Your task to perform on an android device: Go to calendar. Show me events next week Image 0: 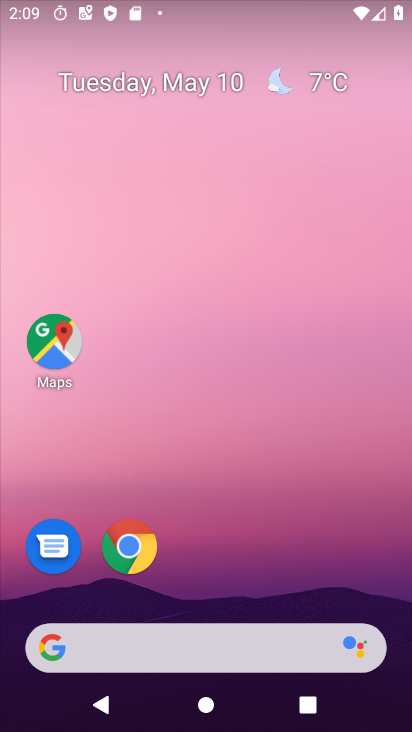
Step 0: drag from (239, 531) to (158, 42)
Your task to perform on an android device: Go to calendar. Show me events next week Image 1: 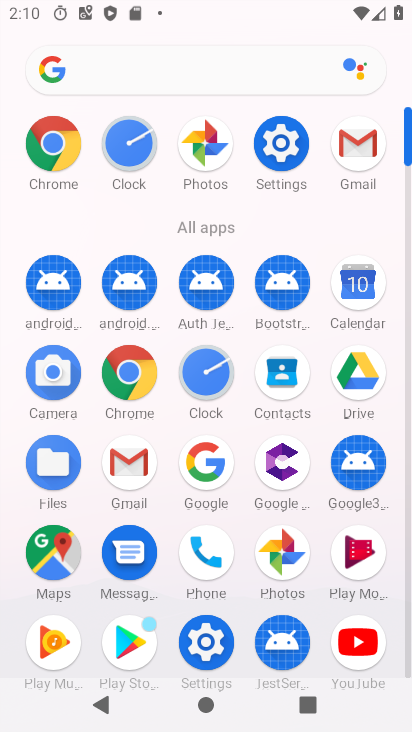
Step 1: click (371, 291)
Your task to perform on an android device: Go to calendar. Show me events next week Image 2: 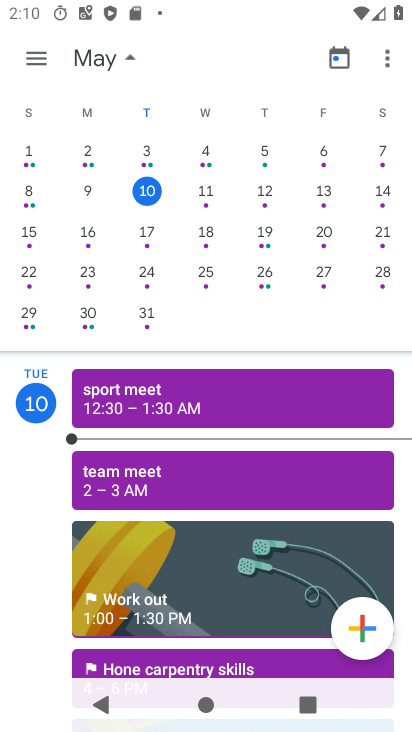
Step 2: click (202, 193)
Your task to perform on an android device: Go to calendar. Show me events next week Image 3: 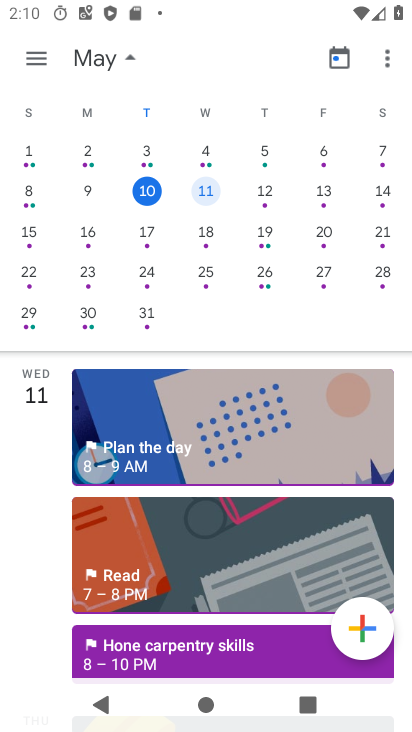
Step 3: task complete